Your task to perform on an android device: How do I get to the nearest IKEA? Image 0: 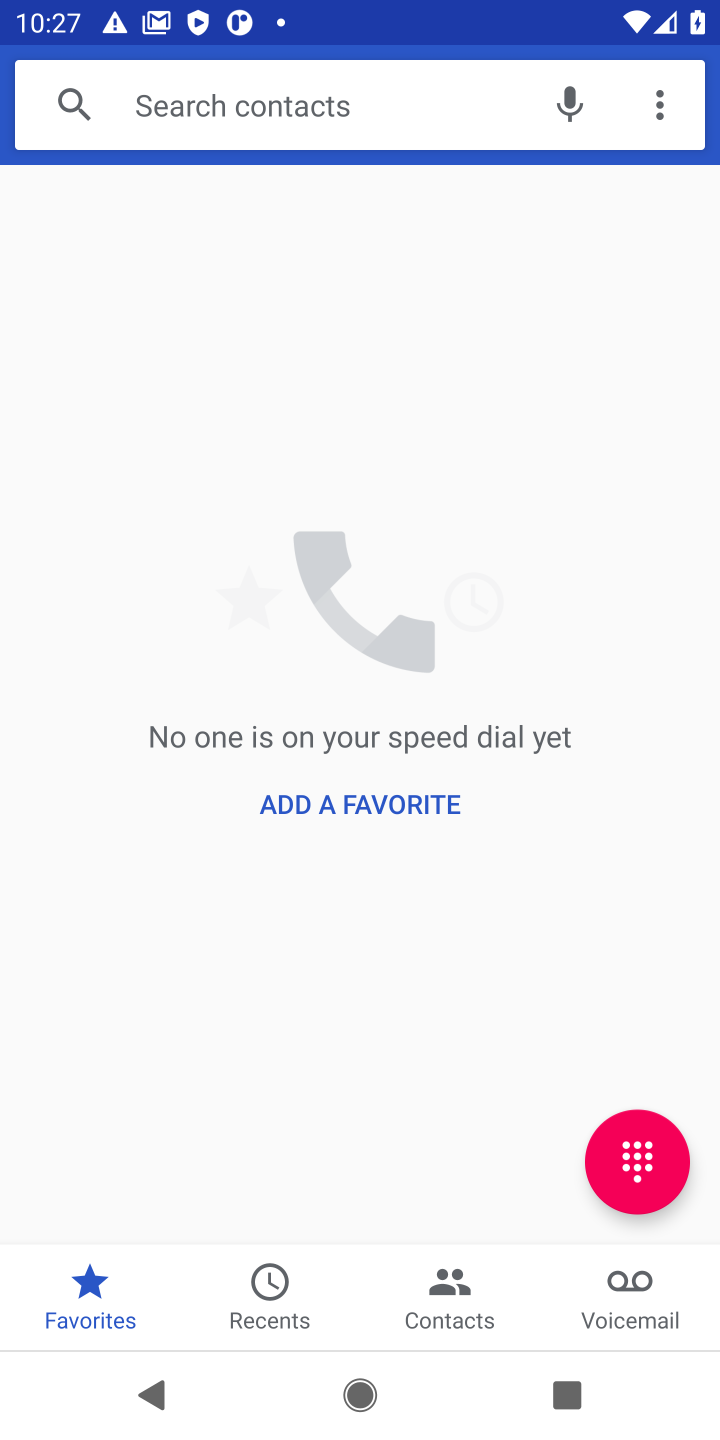
Step 0: press home button
Your task to perform on an android device: How do I get to the nearest IKEA? Image 1: 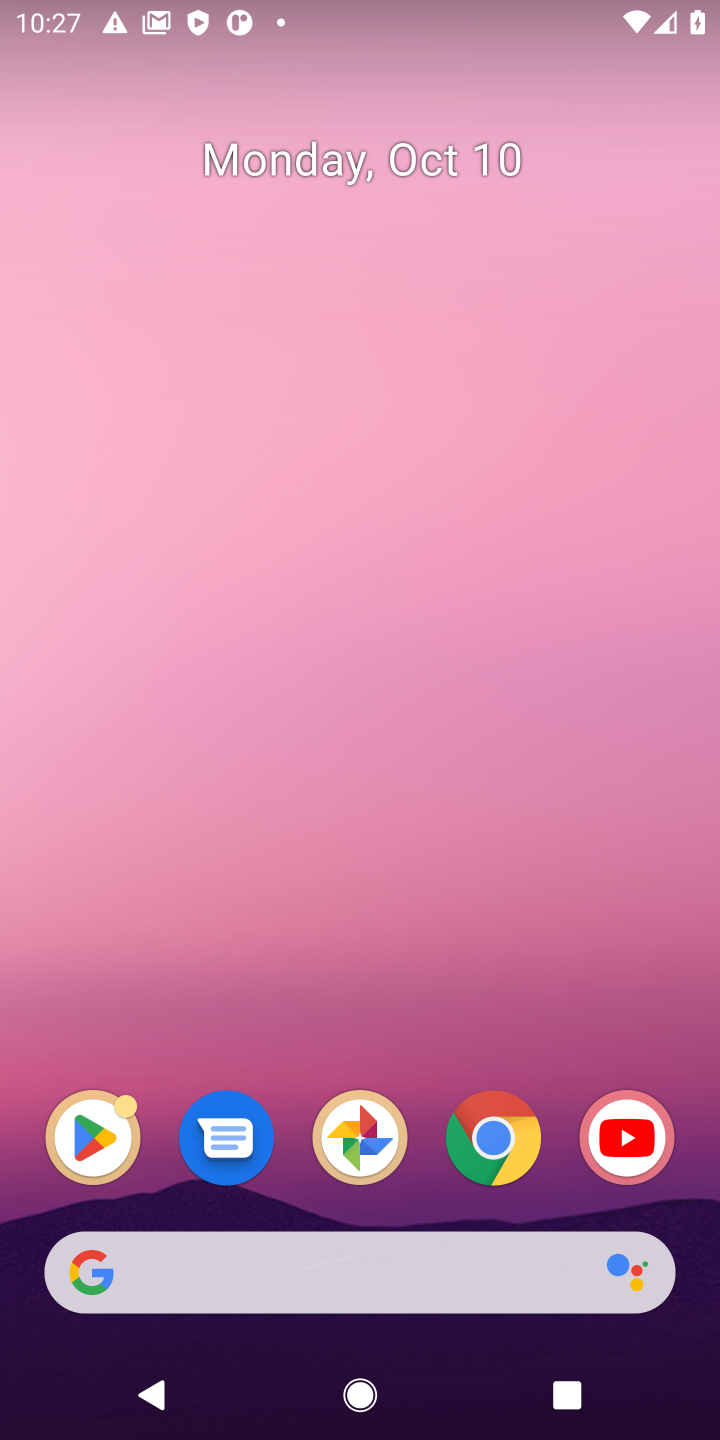
Step 1: click (275, 1266)
Your task to perform on an android device: How do I get to the nearest IKEA? Image 2: 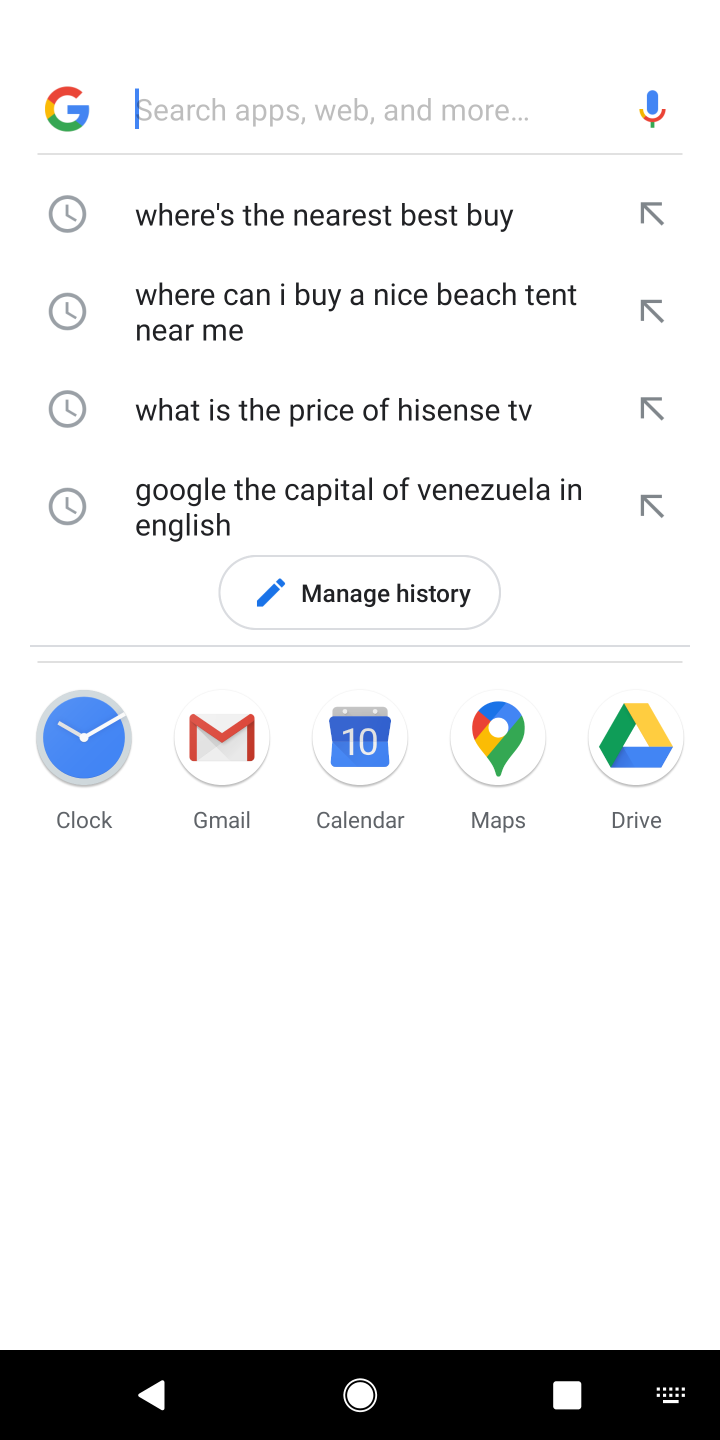
Step 2: type "How do I get to the nearest IKEA?"
Your task to perform on an android device: How do I get to the nearest IKEA? Image 3: 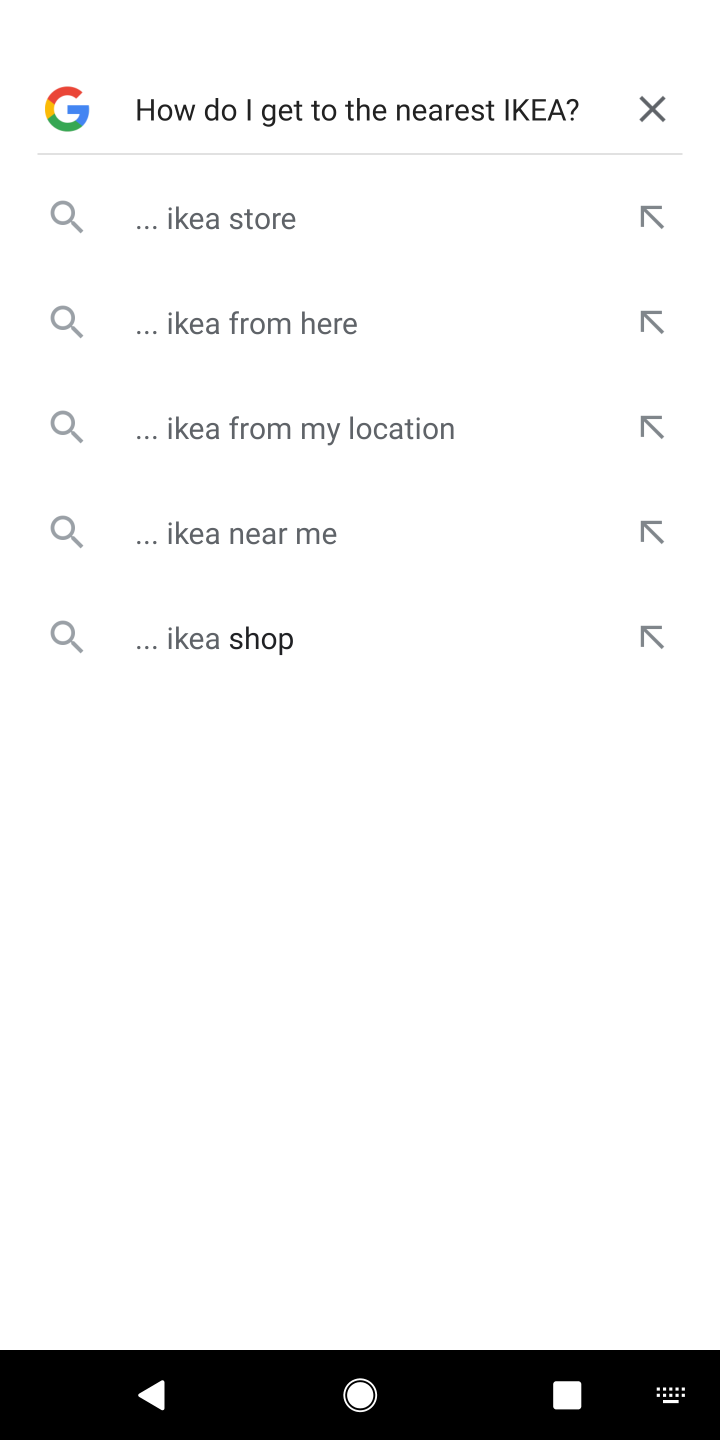
Step 3: click (231, 637)
Your task to perform on an android device: How do I get to the nearest IKEA? Image 4: 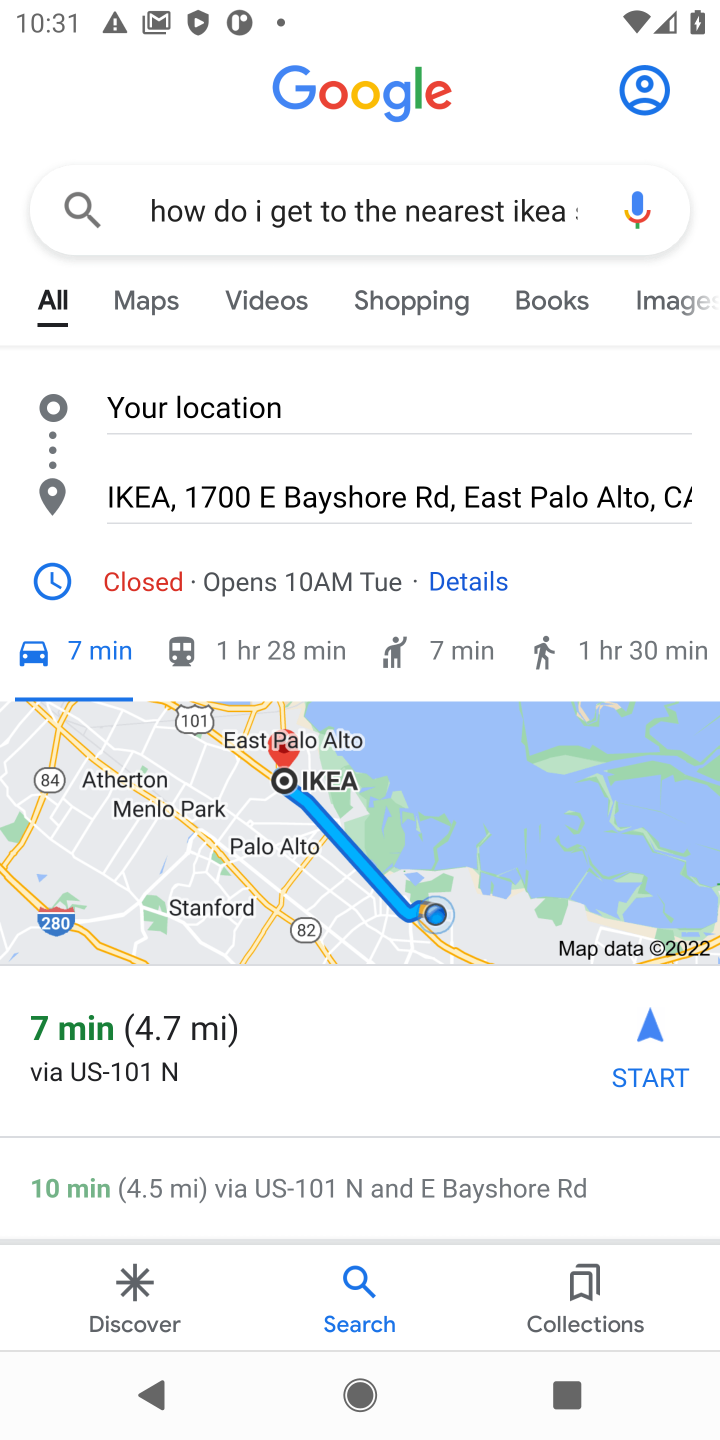
Step 4: task complete